Your task to perform on an android device: Check the weather Image 0: 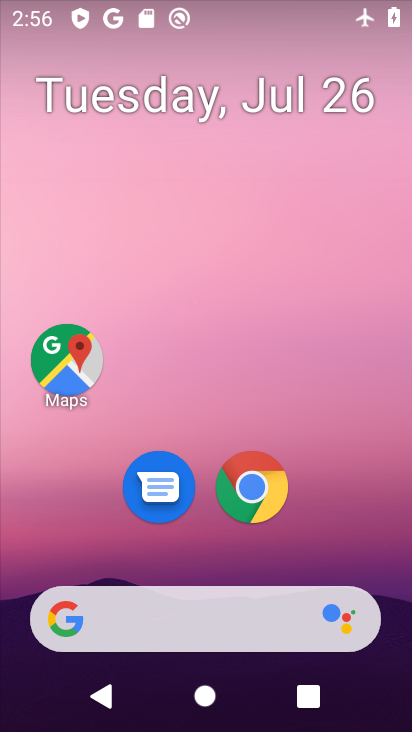
Step 0: click (171, 613)
Your task to perform on an android device: Check the weather Image 1: 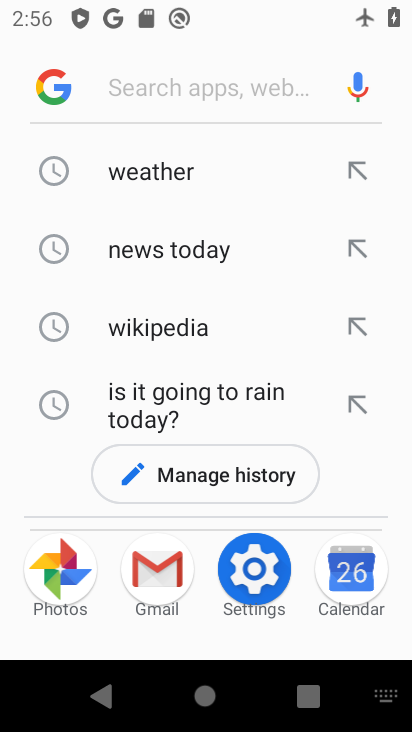
Step 1: click (122, 177)
Your task to perform on an android device: Check the weather Image 2: 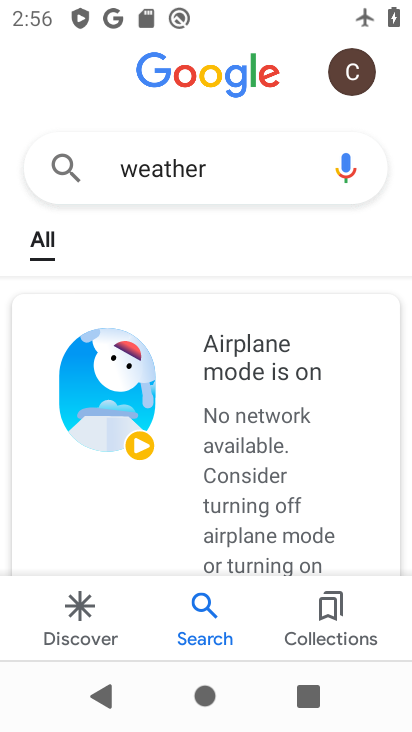
Step 2: drag from (349, 4) to (238, 632)
Your task to perform on an android device: Check the weather Image 3: 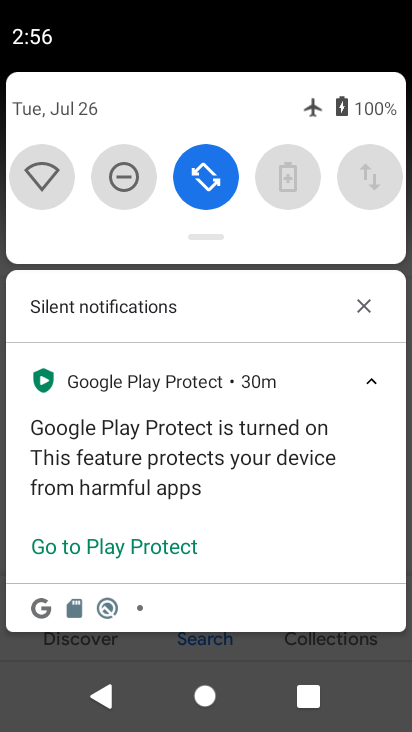
Step 3: drag from (199, 251) to (185, 727)
Your task to perform on an android device: Check the weather Image 4: 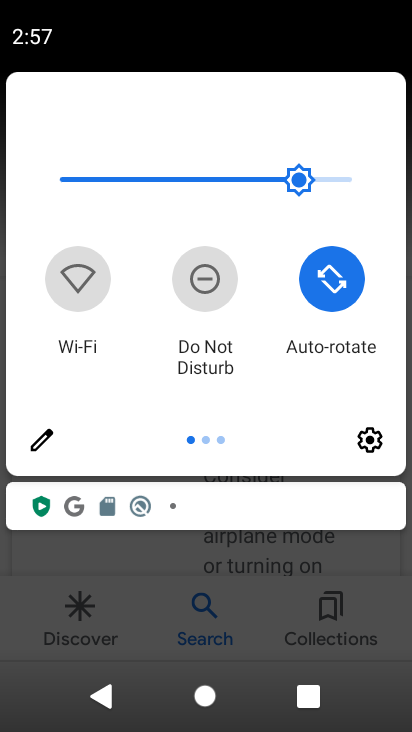
Step 4: drag from (344, 279) to (12, 291)
Your task to perform on an android device: Check the weather Image 5: 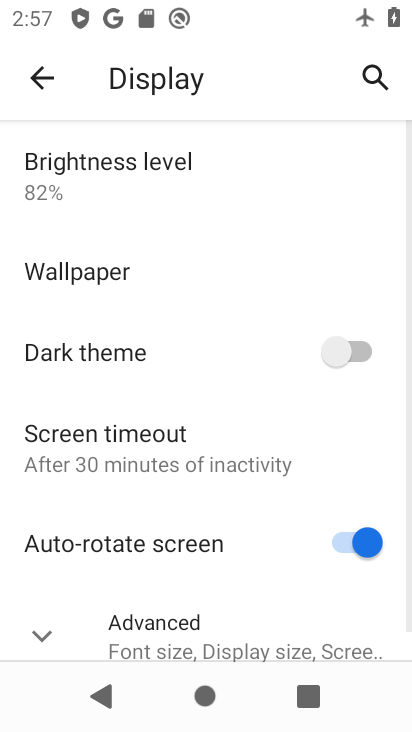
Step 5: click (45, 72)
Your task to perform on an android device: Check the weather Image 6: 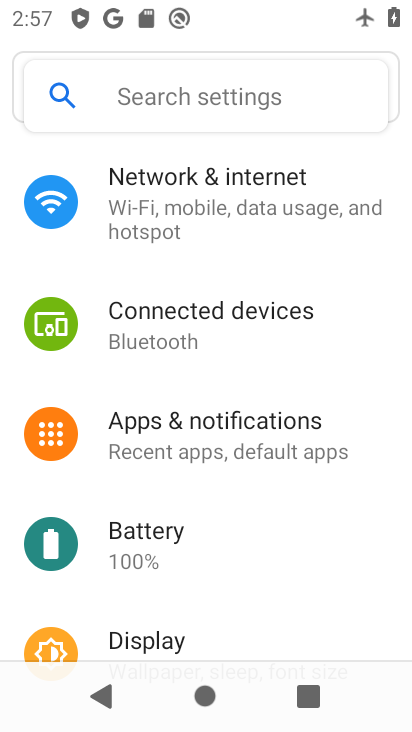
Step 6: drag from (361, 13) to (225, 570)
Your task to perform on an android device: Check the weather Image 7: 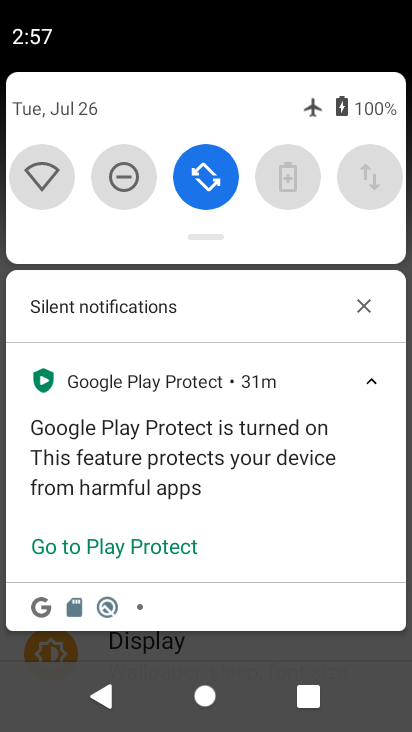
Step 7: drag from (167, 593) to (167, 637)
Your task to perform on an android device: Check the weather Image 8: 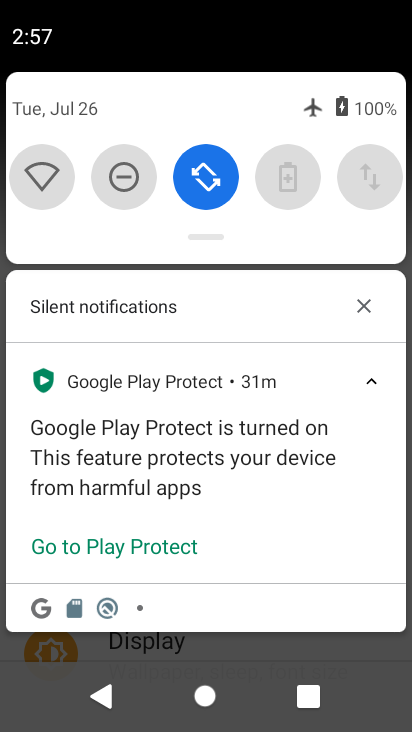
Step 8: drag from (222, 233) to (207, 696)
Your task to perform on an android device: Check the weather Image 9: 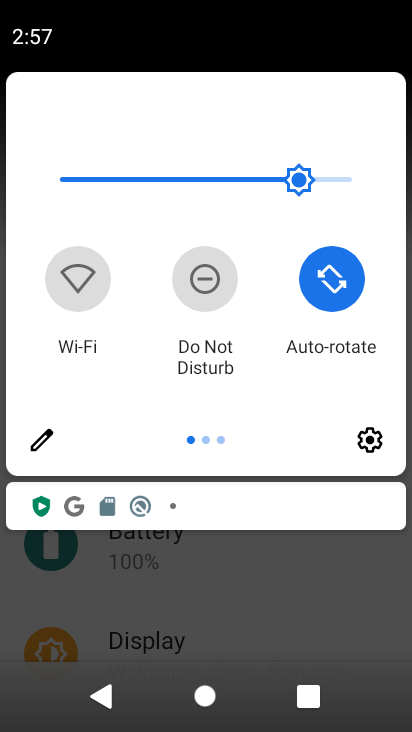
Step 9: drag from (357, 274) to (5, 282)
Your task to perform on an android device: Check the weather Image 10: 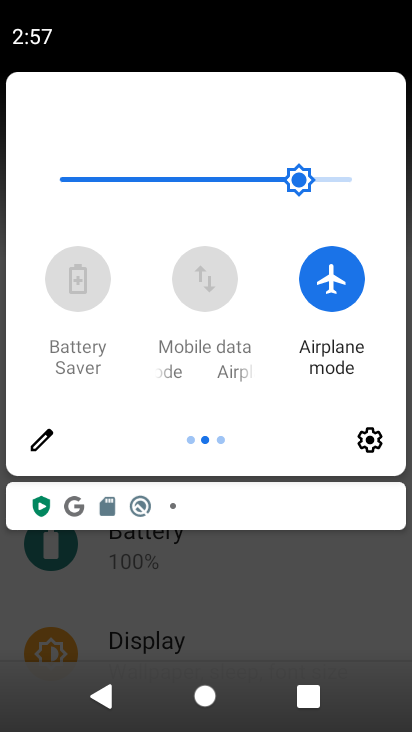
Step 10: click (324, 286)
Your task to perform on an android device: Check the weather Image 11: 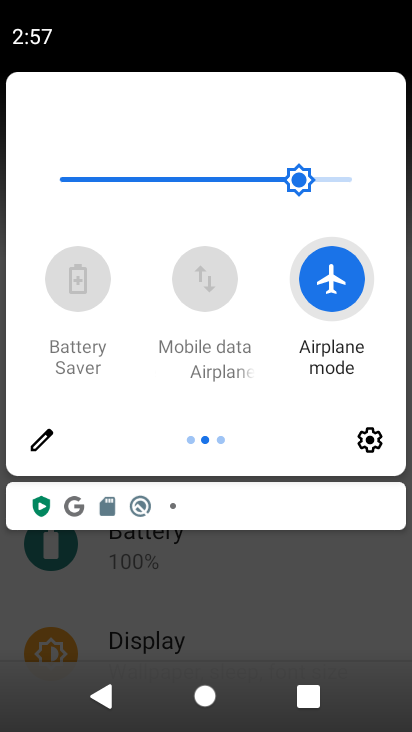
Step 11: click (190, 565)
Your task to perform on an android device: Check the weather Image 12: 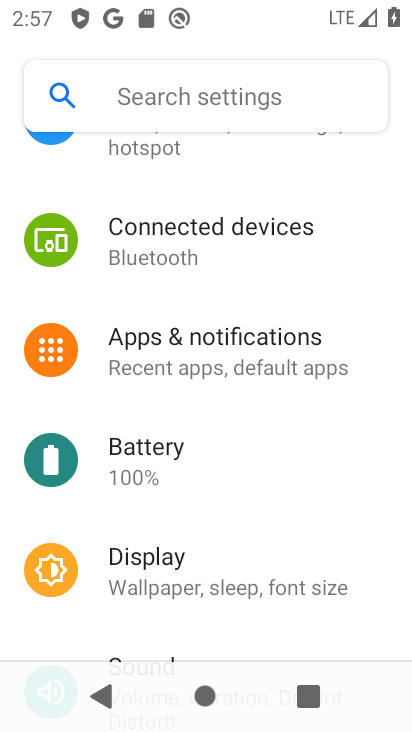
Step 12: press back button
Your task to perform on an android device: Check the weather Image 13: 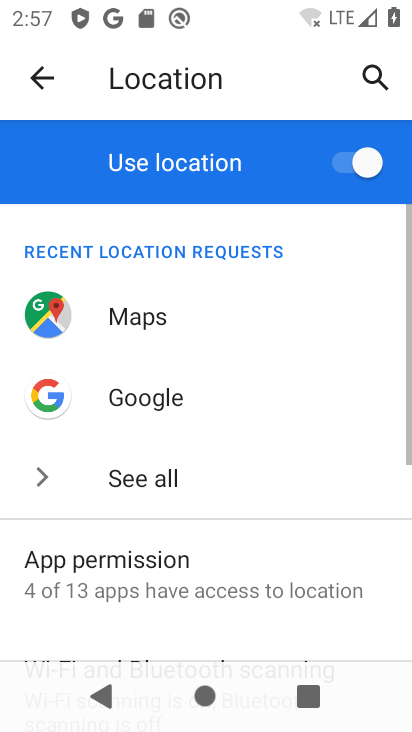
Step 13: press back button
Your task to perform on an android device: Check the weather Image 14: 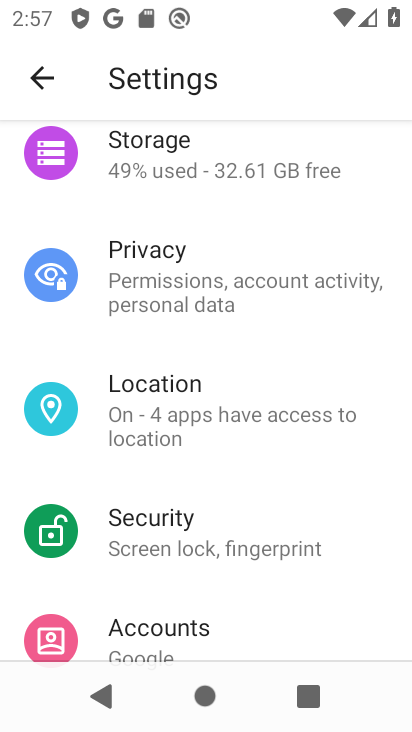
Step 14: press back button
Your task to perform on an android device: Check the weather Image 15: 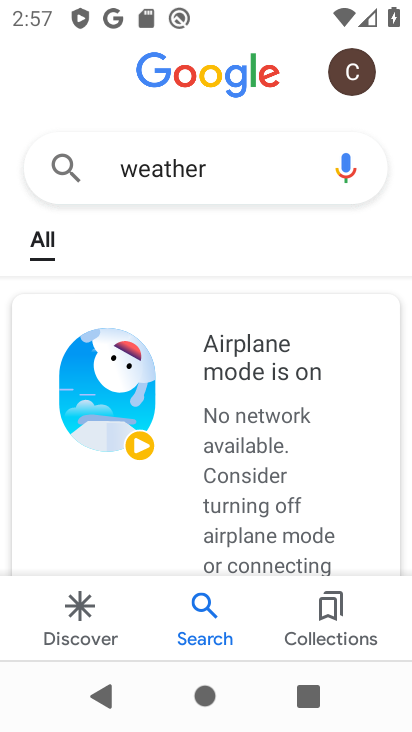
Step 15: drag from (206, 490) to (317, 176)
Your task to perform on an android device: Check the weather Image 16: 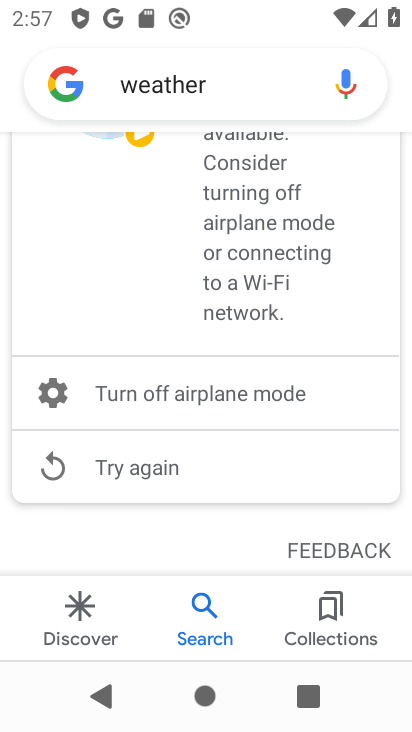
Step 16: click (147, 475)
Your task to perform on an android device: Check the weather Image 17: 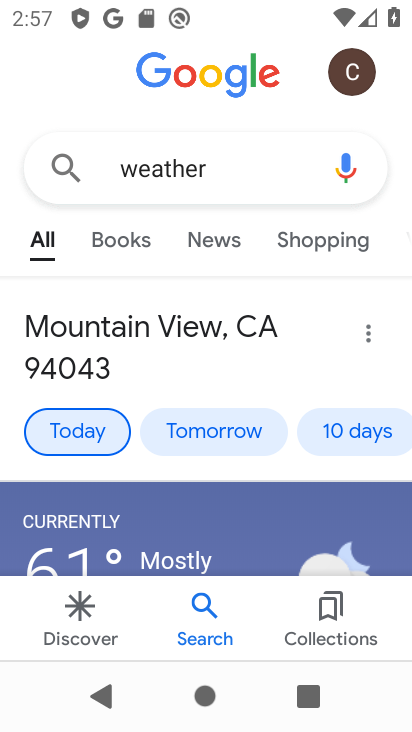
Step 17: task complete